Your task to perform on an android device: Open Chrome and go to settings Image 0: 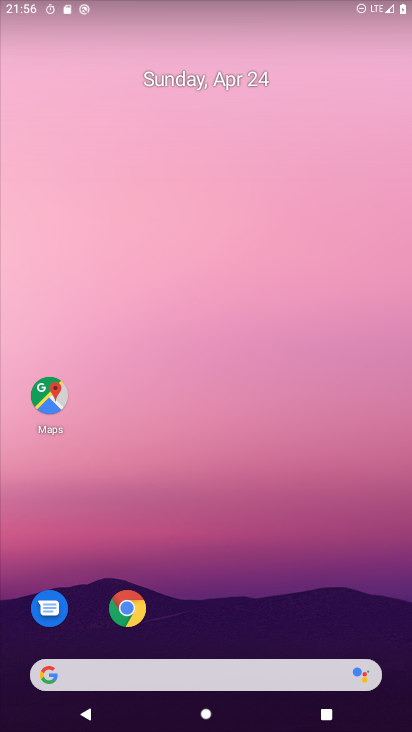
Step 0: click (131, 600)
Your task to perform on an android device: Open Chrome and go to settings Image 1: 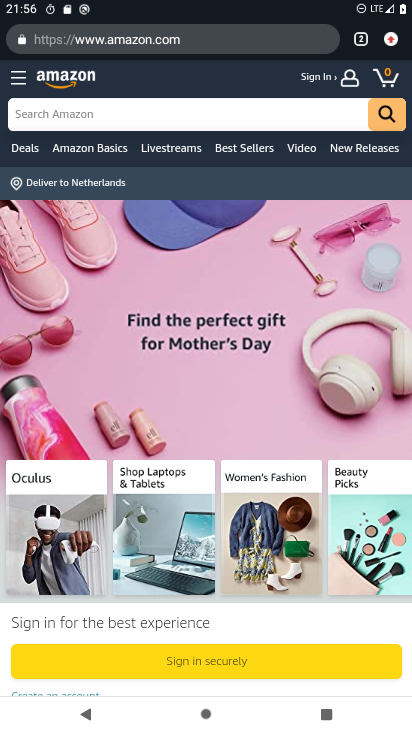
Step 1: click (393, 40)
Your task to perform on an android device: Open Chrome and go to settings Image 2: 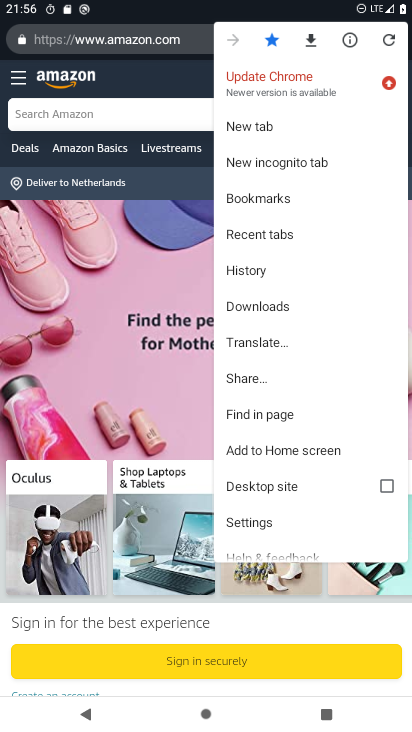
Step 2: click (287, 520)
Your task to perform on an android device: Open Chrome and go to settings Image 3: 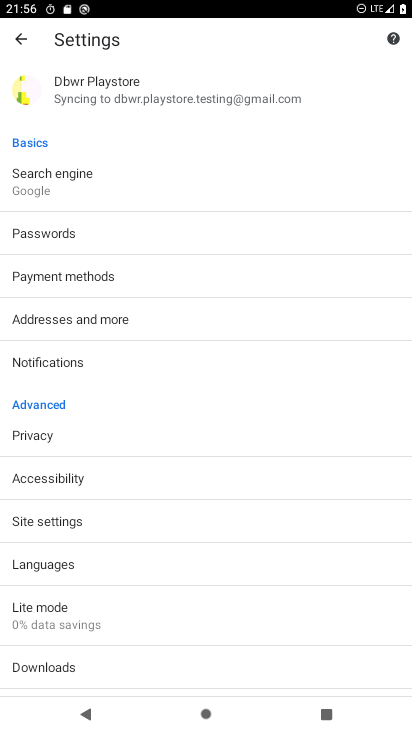
Step 3: task complete